Your task to perform on an android device: uninstall "Spotify" Image 0: 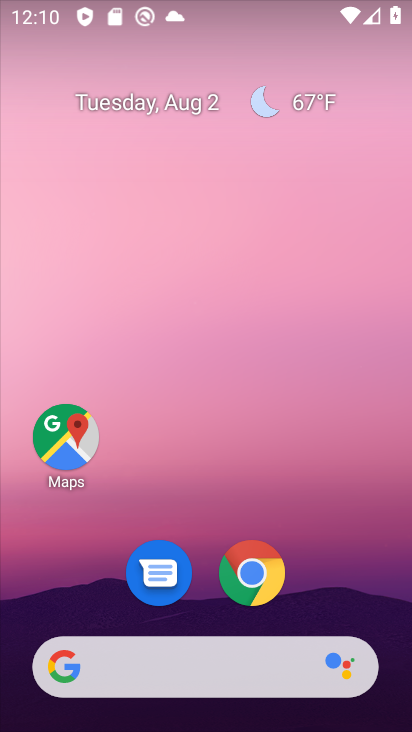
Step 0: drag from (224, 624) to (178, 16)
Your task to perform on an android device: uninstall "Spotify" Image 1: 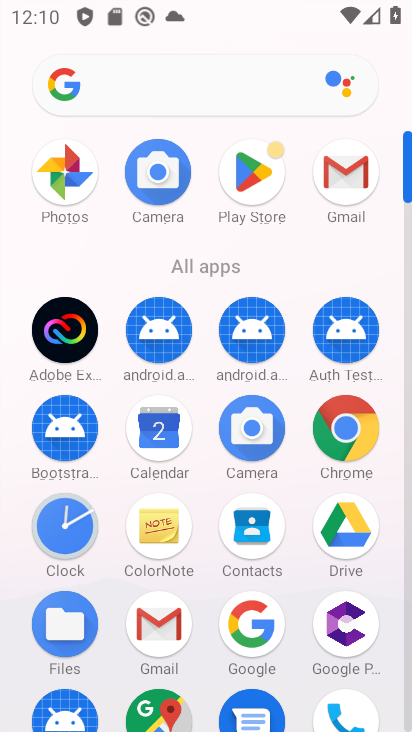
Step 1: click (355, 181)
Your task to perform on an android device: uninstall "Spotify" Image 2: 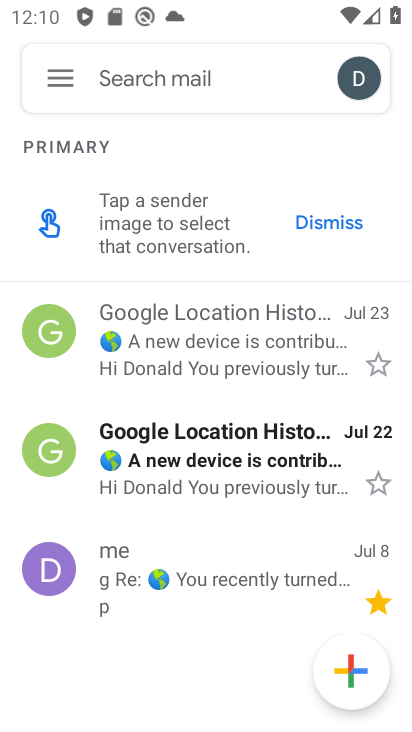
Step 2: press home button
Your task to perform on an android device: uninstall "Spotify" Image 3: 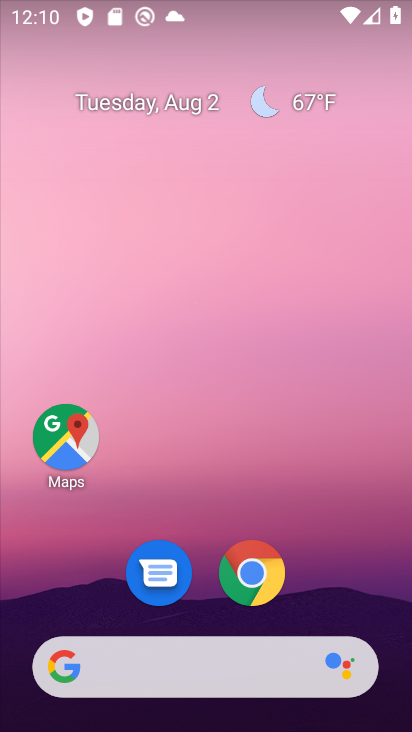
Step 3: drag from (179, 651) to (182, 64)
Your task to perform on an android device: uninstall "Spotify" Image 4: 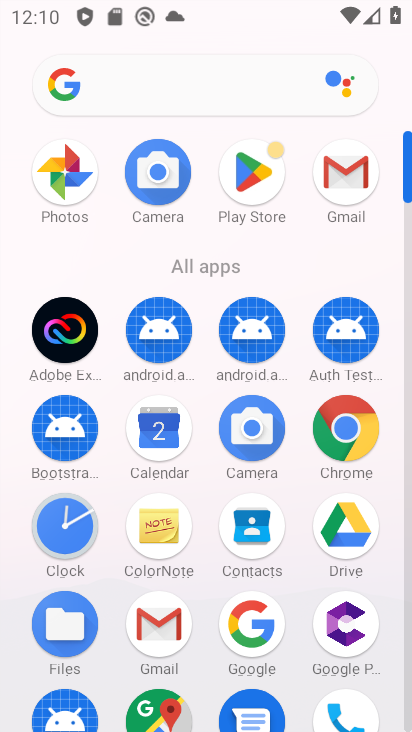
Step 4: click (243, 156)
Your task to perform on an android device: uninstall "Spotify" Image 5: 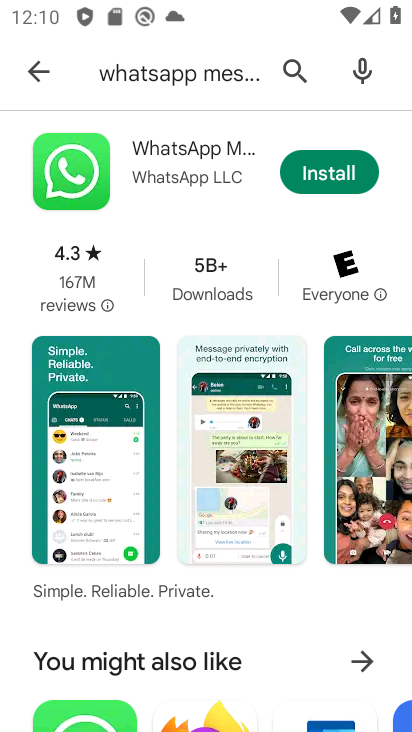
Step 5: click (296, 65)
Your task to perform on an android device: uninstall "Spotify" Image 6: 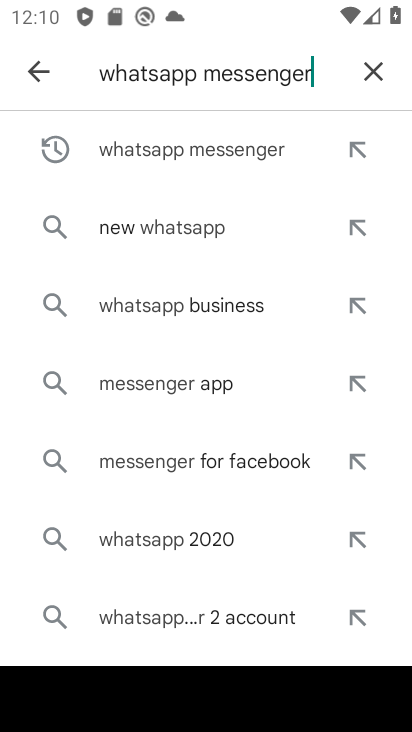
Step 6: click (371, 66)
Your task to perform on an android device: uninstall "Spotify" Image 7: 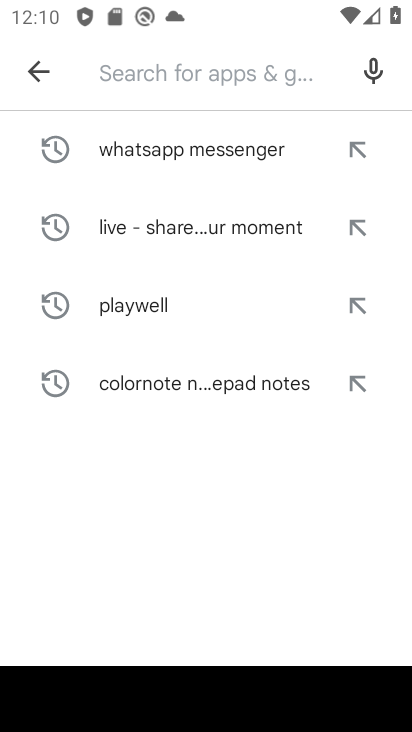
Step 7: type "spotify"
Your task to perform on an android device: uninstall "Spotify" Image 8: 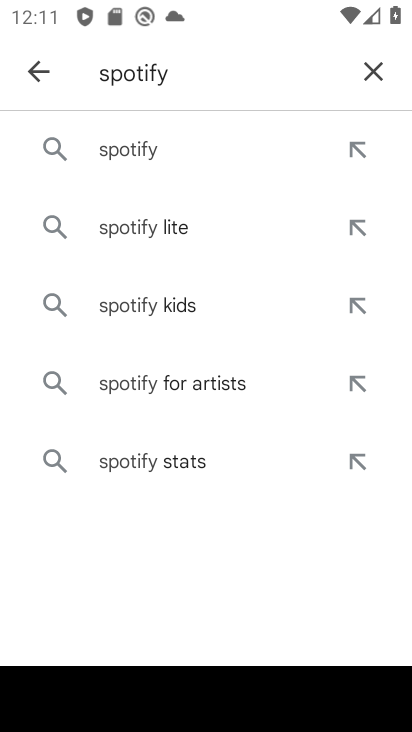
Step 8: click (98, 144)
Your task to perform on an android device: uninstall "Spotify" Image 9: 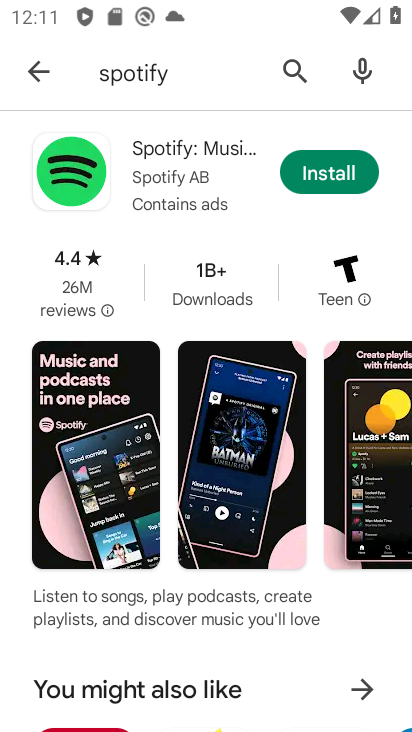
Step 9: task complete